Your task to perform on an android device: Open notification settings Image 0: 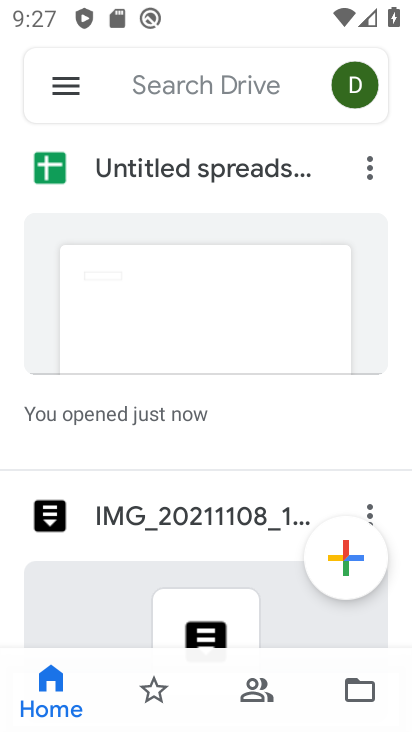
Step 0: press home button
Your task to perform on an android device: Open notification settings Image 1: 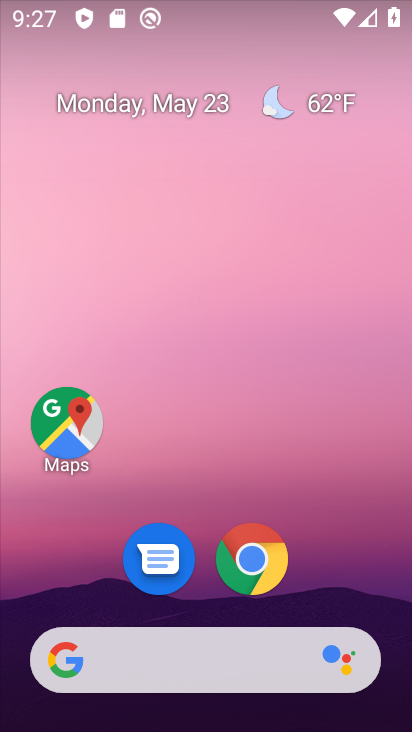
Step 1: drag from (59, 544) to (198, 4)
Your task to perform on an android device: Open notification settings Image 2: 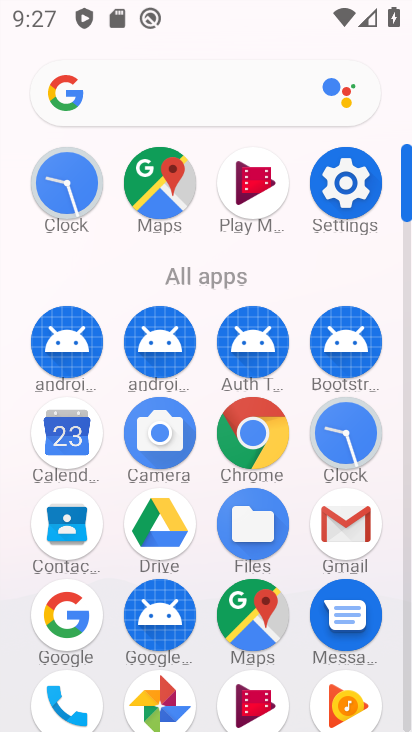
Step 2: drag from (172, 574) to (234, 224)
Your task to perform on an android device: Open notification settings Image 3: 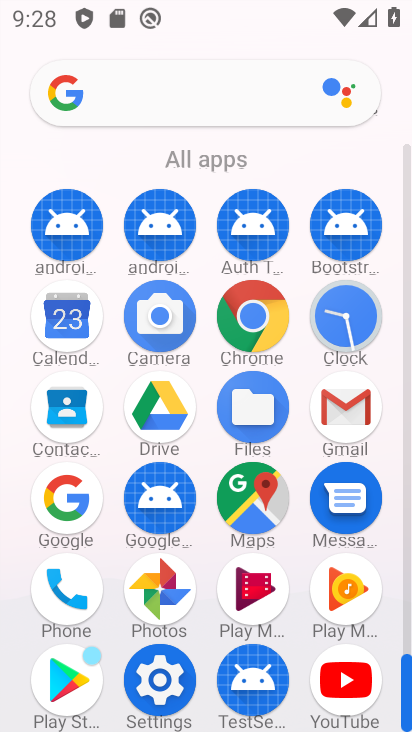
Step 3: click (162, 682)
Your task to perform on an android device: Open notification settings Image 4: 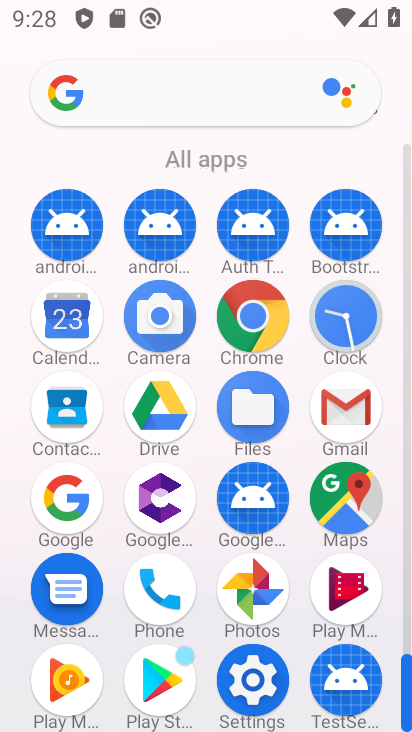
Step 4: click (278, 682)
Your task to perform on an android device: Open notification settings Image 5: 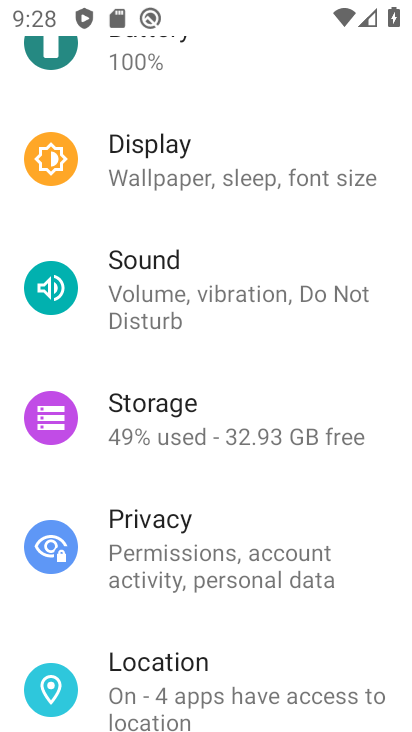
Step 5: drag from (278, 248) to (310, 678)
Your task to perform on an android device: Open notification settings Image 6: 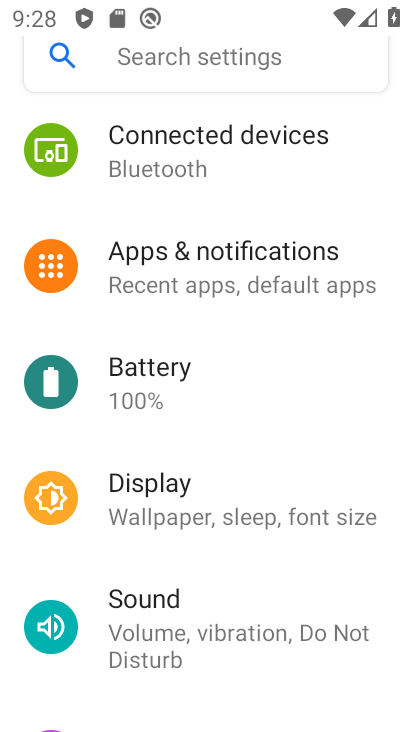
Step 6: click (264, 273)
Your task to perform on an android device: Open notification settings Image 7: 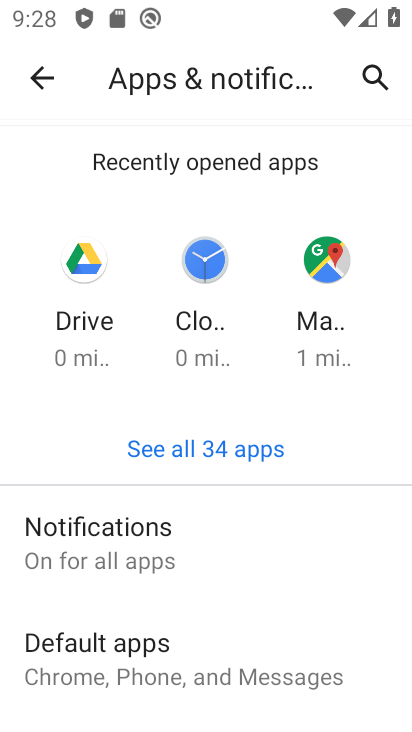
Step 7: click (221, 541)
Your task to perform on an android device: Open notification settings Image 8: 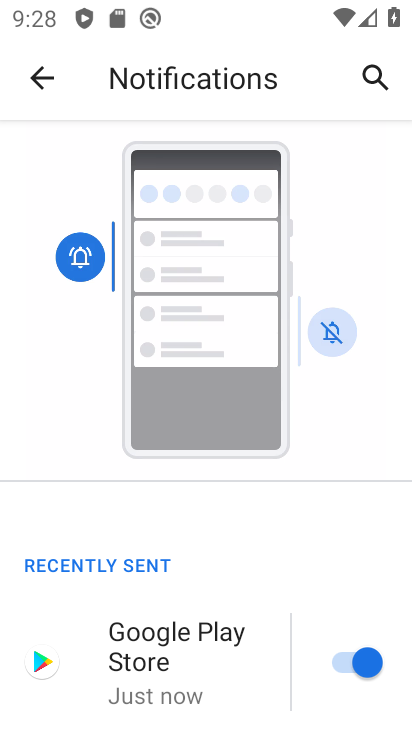
Step 8: task complete